Your task to perform on an android device: Search for Mexican restaurants on Maps Image 0: 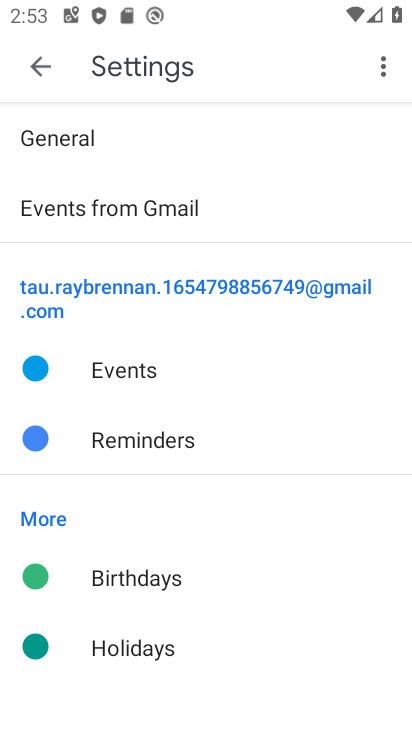
Step 0: press home button
Your task to perform on an android device: Search for Mexican restaurants on Maps Image 1: 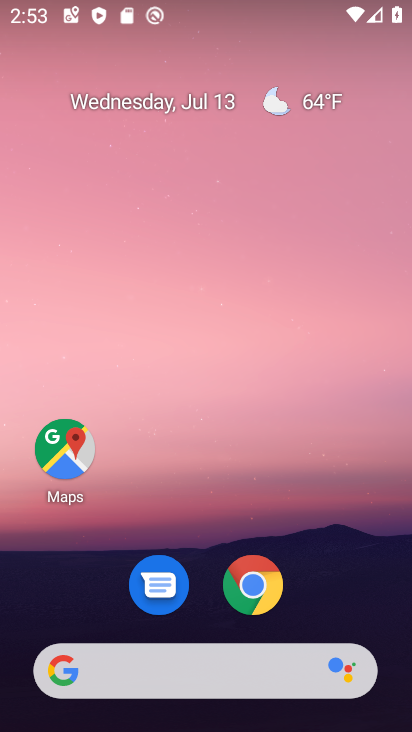
Step 1: click (72, 450)
Your task to perform on an android device: Search for Mexican restaurants on Maps Image 2: 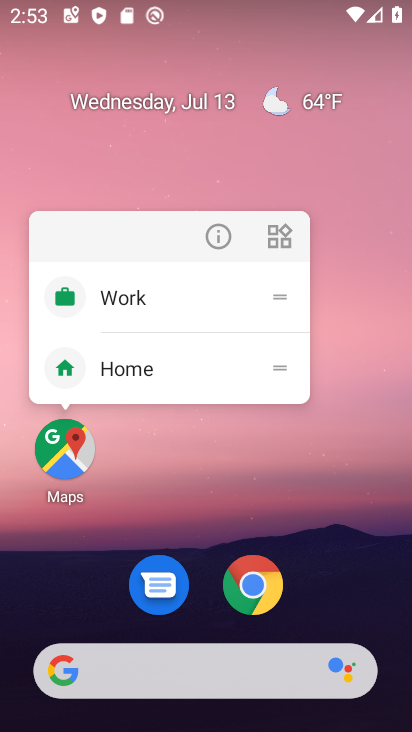
Step 2: click (53, 468)
Your task to perform on an android device: Search for Mexican restaurants on Maps Image 3: 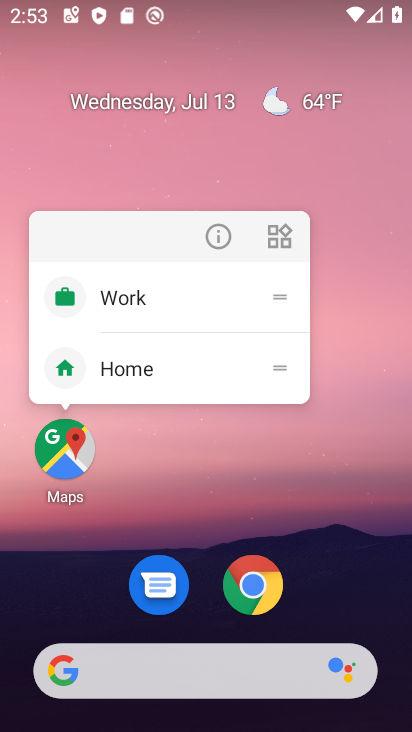
Step 3: click (53, 461)
Your task to perform on an android device: Search for Mexican restaurants on Maps Image 4: 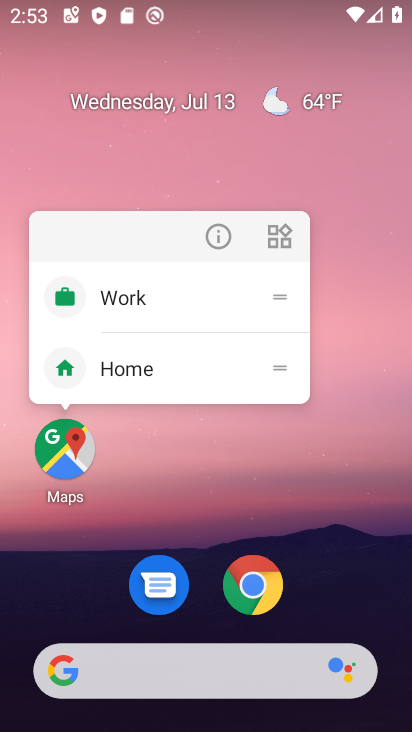
Step 4: click (71, 451)
Your task to perform on an android device: Search for Mexican restaurants on Maps Image 5: 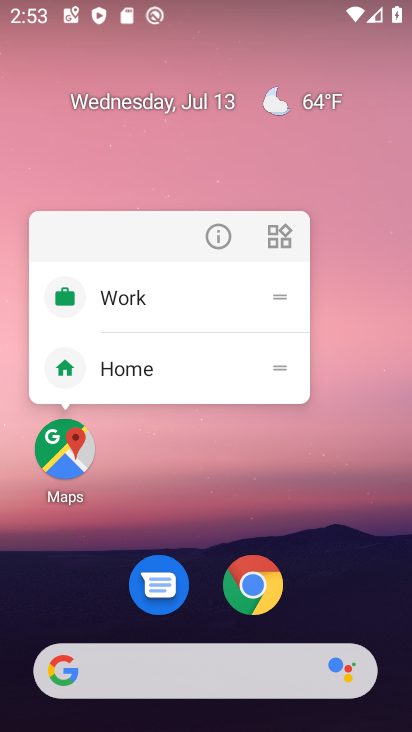
Step 5: click (62, 446)
Your task to perform on an android device: Search for Mexican restaurants on Maps Image 6: 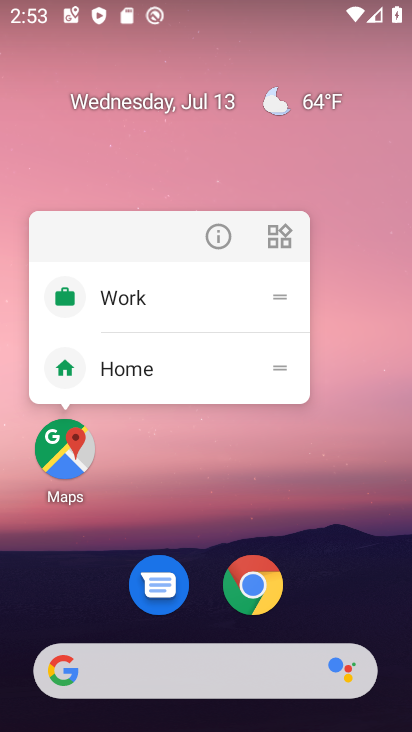
Step 6: click (62, 446)
Your task to perform on an android device: Search for Mexican restaurants on Maps Image 7: 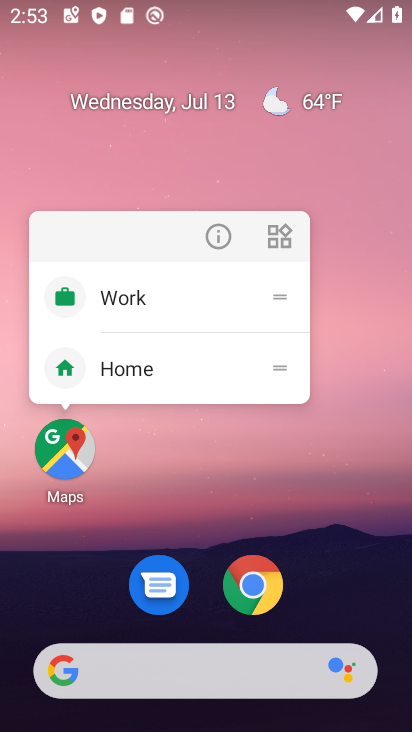
Step 7: click (62, 447)
Your task to perform on an android device: Search for Mexican restaurants on Maps Image 8: 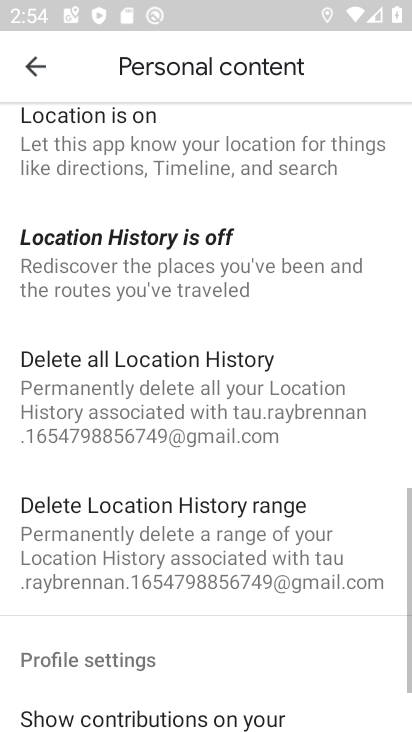
Step 8: click (40, 72)
Your task to perform on an android device: Search for Mexican restaurants on Maps Image 9: 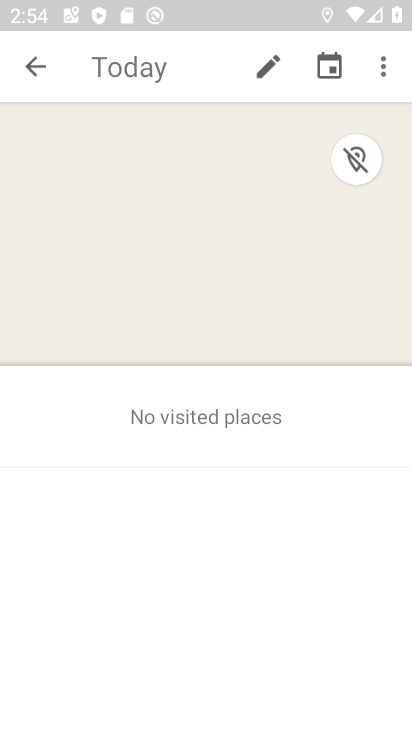
Step 9: click (40, 74)
Your task to perform on an android device: Search for Mexican restaurants on Maps Image 10: 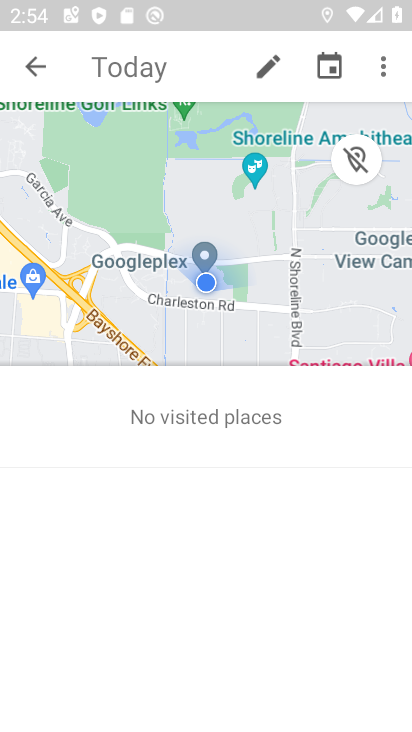
Step 10: click (23, 70)
Your task to perform on an android device: Search for Mexican restaurants on Maps Image 11: 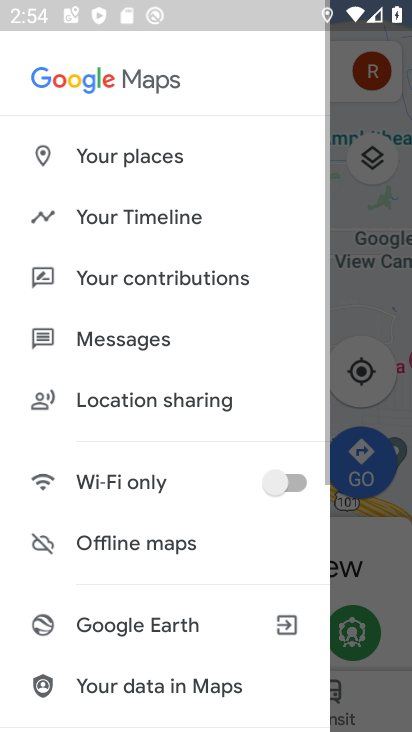
Step 11: click (127, 77)
Your task to perform on an android device: Search for Mexican restaurants on Maps Image 12: 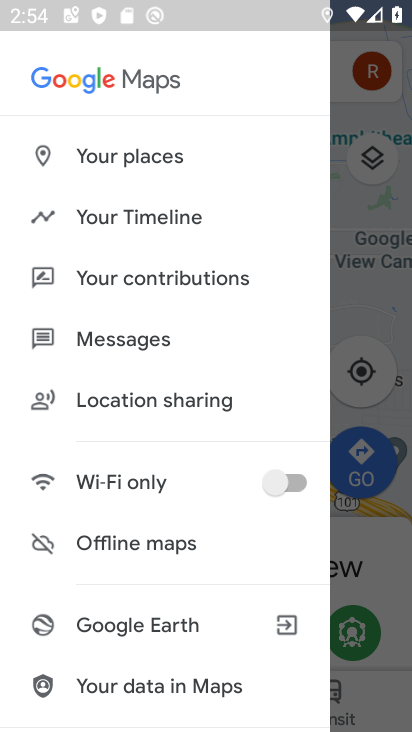
Step 12: click (340, 90)
Your task to perform on an android device: Search for Mexican restaurants on Maps Image 13: 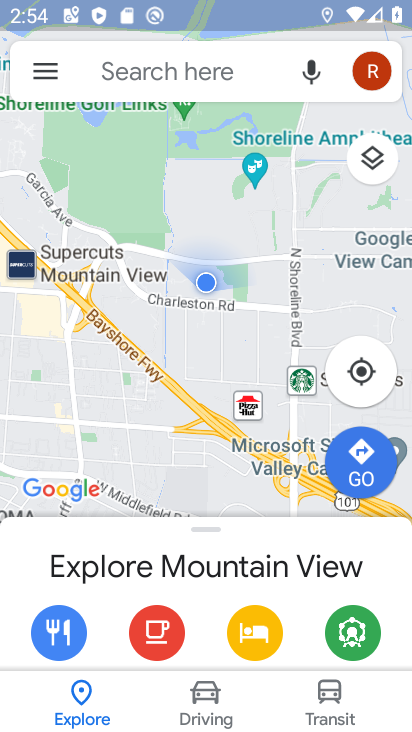
Step 13: click (205, 70)
Your task to perform on an android device: Search for Mexican restaurants on Maps Image 14: 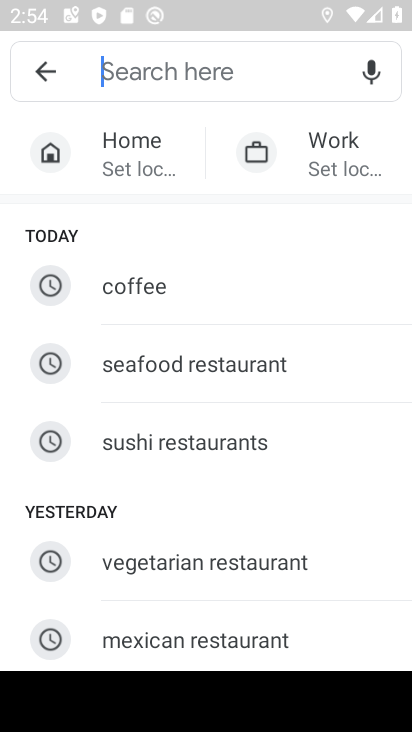
Step 14: click (229, 637)
Your task to perform on an android device: Search for Mexican restaurants on Maps Image 15: 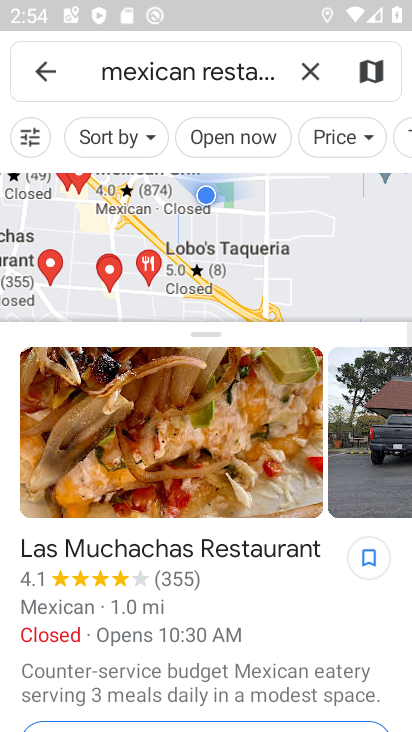
Step 15: task complete